Your task to perform on an android device: Is it going to rain today? Image 0: 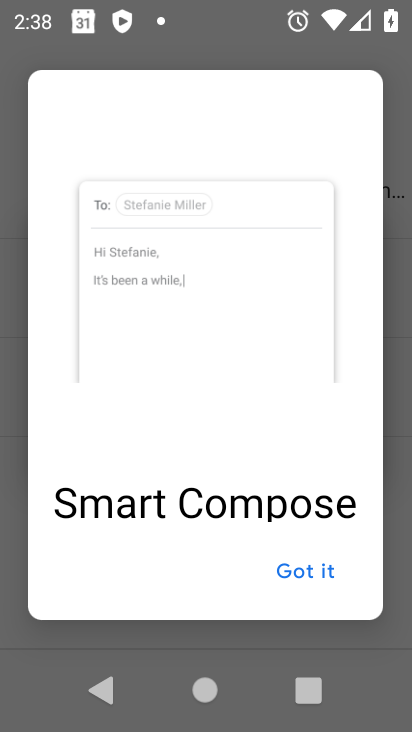
Step 0: press home button
Your task to perform on an android device: Is it going to rain today? Image 1: 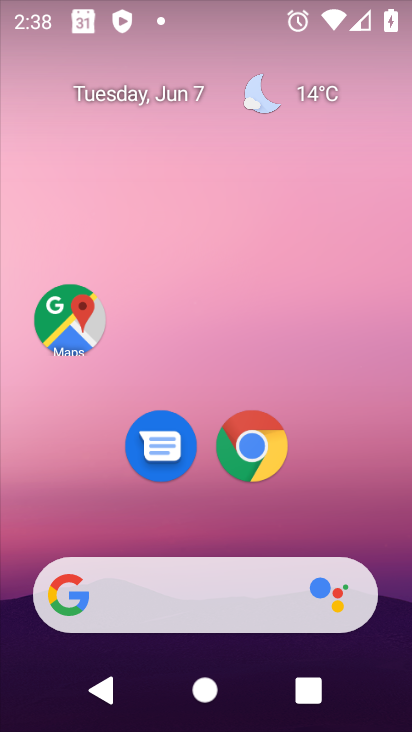
Step 1: click (262, 99)
Your task to perform on an android device: Is it going to rain today? Image 2: 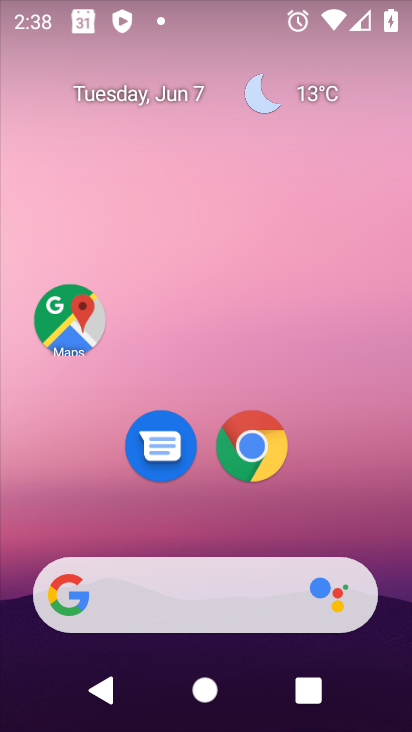
Step 2: click (295, 95)
Your task to perform on an android device: Is it going to rain today? Image 3: 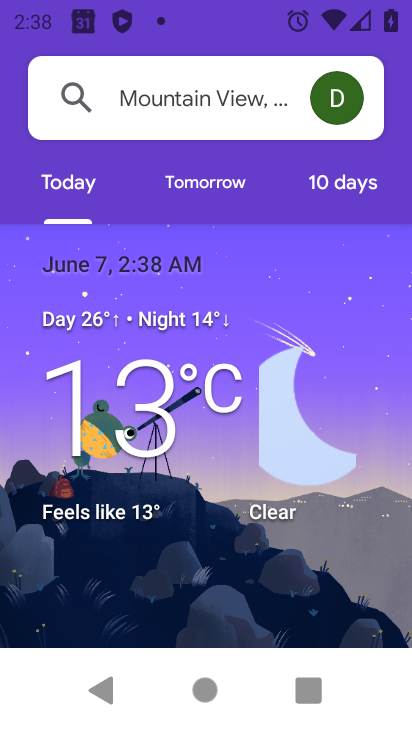
Step 3: task complete